Your task to perform on an android device: Clear the shopping cart on amazon.com. Add "razer blade" to the cart on amazon.com, then select checkout. Image 0: 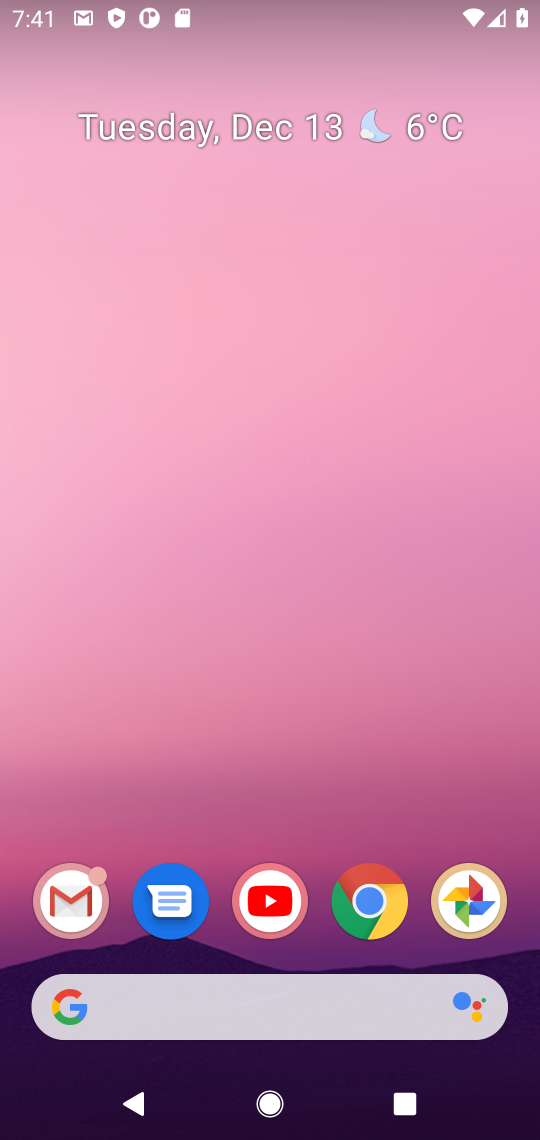
Step 0: click (362, 904)
Your task to perform on an android device: Clear the shopping cart on amazon.com. Add "razer blade" to the cart on amazon.com, then select checkout. Image 1: 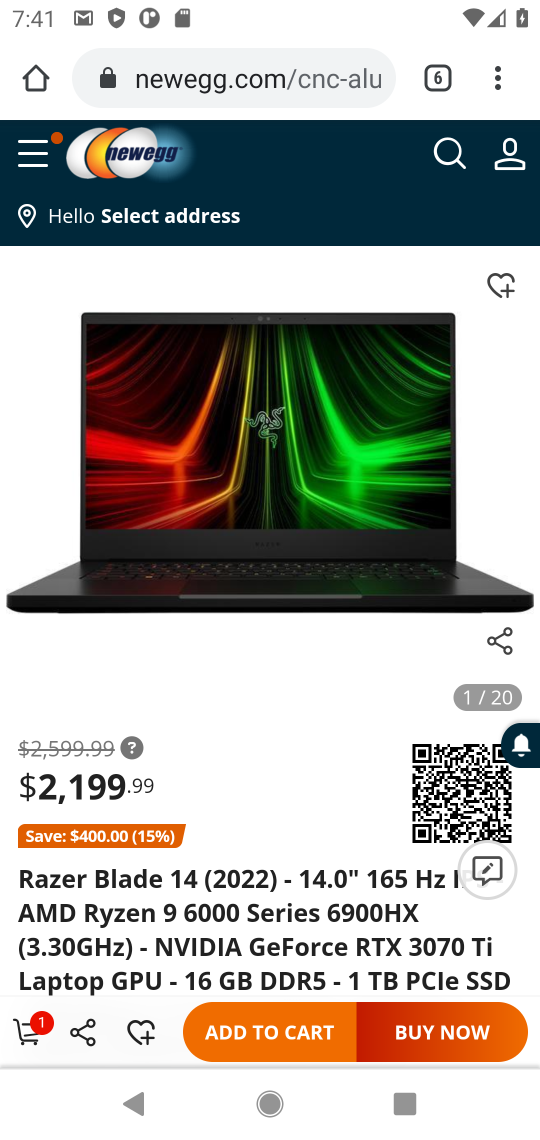
Step 1: click (426, 73)
Your task to perform on an android device: Clear the shopping cart on amazon.com. Add "razer blade" to the cart on amazon.com, then select checkout. Image 2: 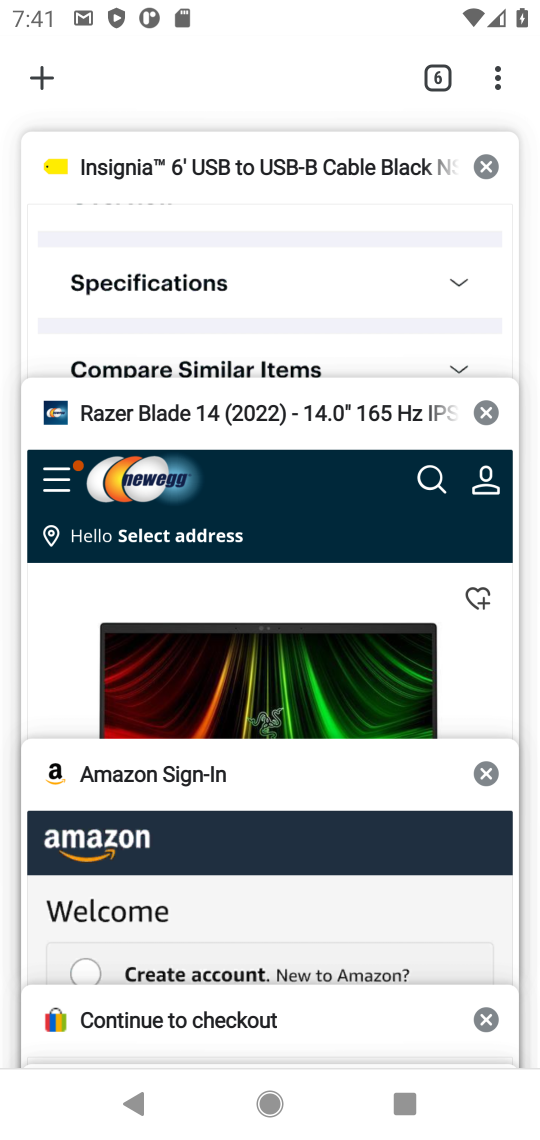
Step 2: click (278, 902)
Your task to perform on an android device: Clear the shopping cart on amazon.com. Add "razer blade" to the cart on amazon.com, then select checkout. Image 3: 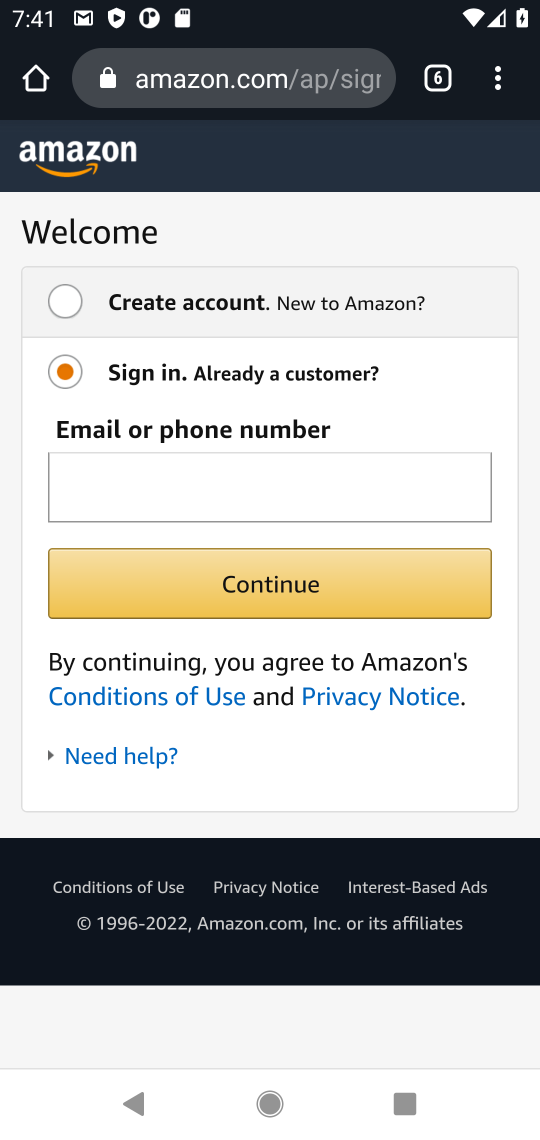
Step 3: press back button
Your task to perform on an android device: Clear the shopping cart on amazon.com. Add "razer blade" to the cart on amazon.com, then select checkout. Image 4: 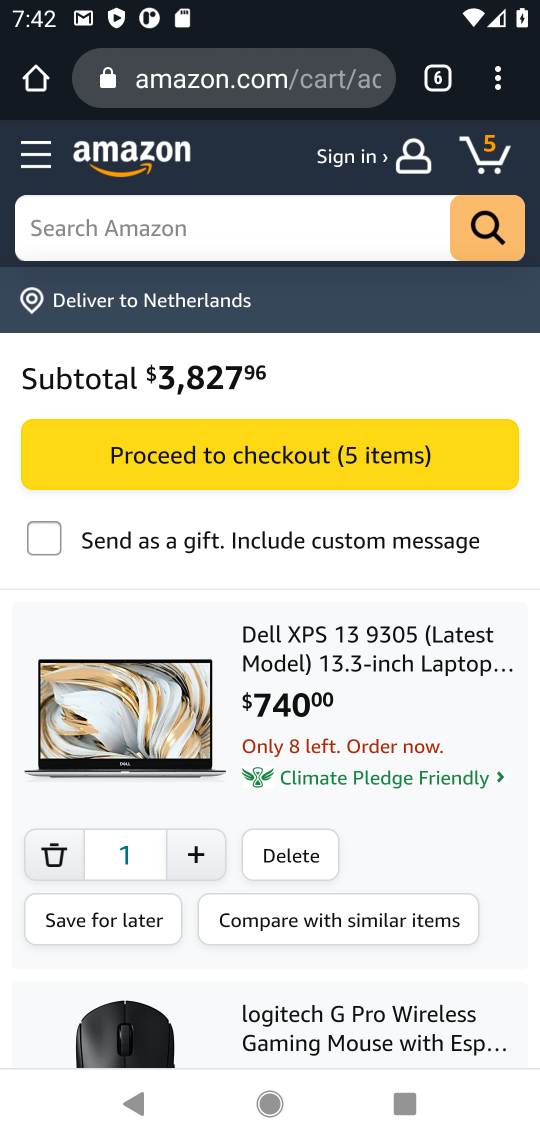
Step 4: click (281, 862)
Your task to perform on an android device: Clear the shopping cart on amazon.com. Add "razer blade" to the cart on amazon.com, then select checkout. Image 5: 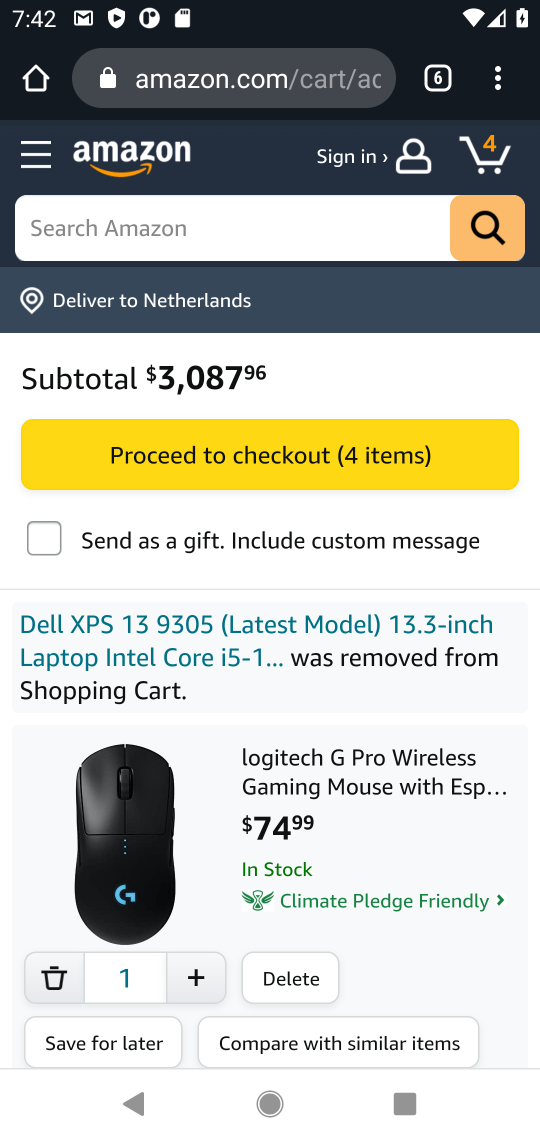
Step 5: click (290, 960)
Your task to perform on an android device: Clear the shopping cart on amazon.com. Add "razer blade" to the cart on amazon.com, then select checkout. Image 6: 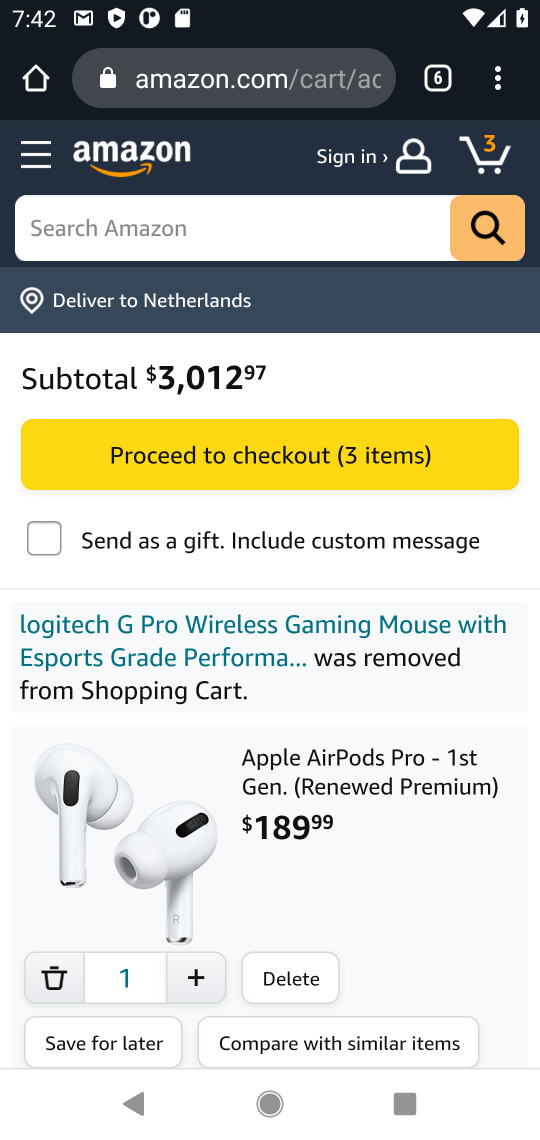
Step 6: click (291, 968)
Your task to perform on an android device: Clear the shopping cart on amazon.com. Add "razer blade" to the cart on amazon.com, then select checkout. Image 7: 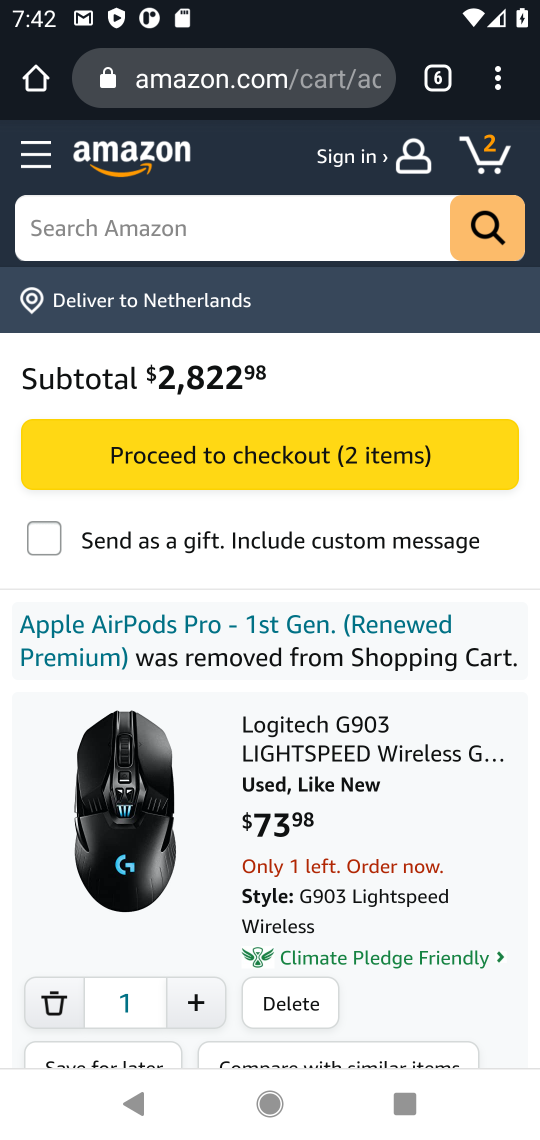
Step 7: click (280, 1004)
Your task to perform on an android device: Clear the shopping cart on amazon.com. Add "razer blade" to the cart on amazon.com, then select checkout. Image 8: 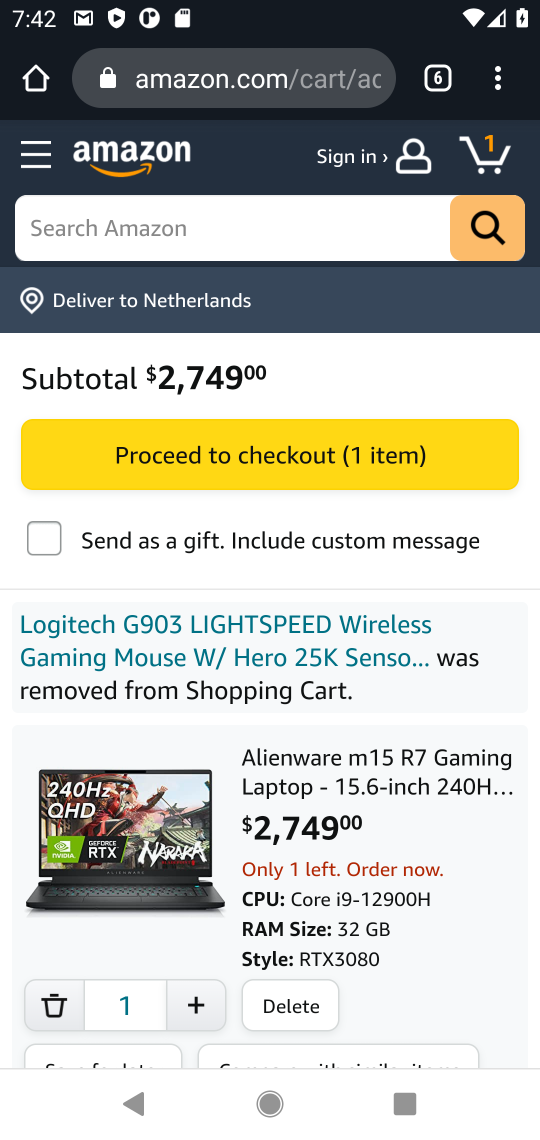
Step 8: click (286, 1001)
Your task to perform on an android device: Clear the shopping cart on amazon.com. Add "razer blade" to the cart on amazon.com, then select checkout. Image 9: 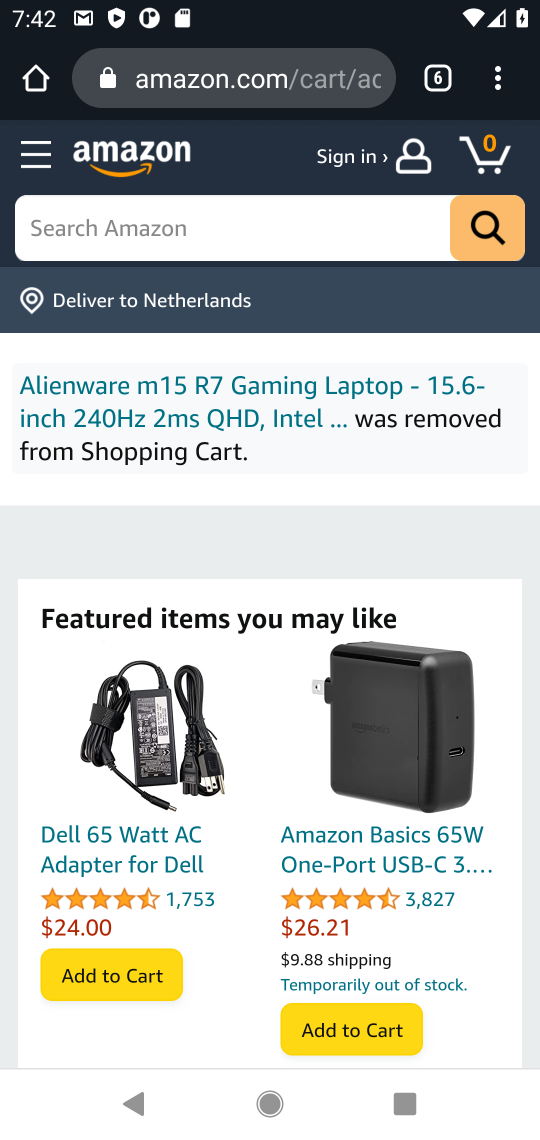
Step 9: click (180, 233)
Your task to perform on an android device: Clear the shopping cart on amazon.com. Add "razer blade" to the cart on amazon.com, then select checkout. Image 10: 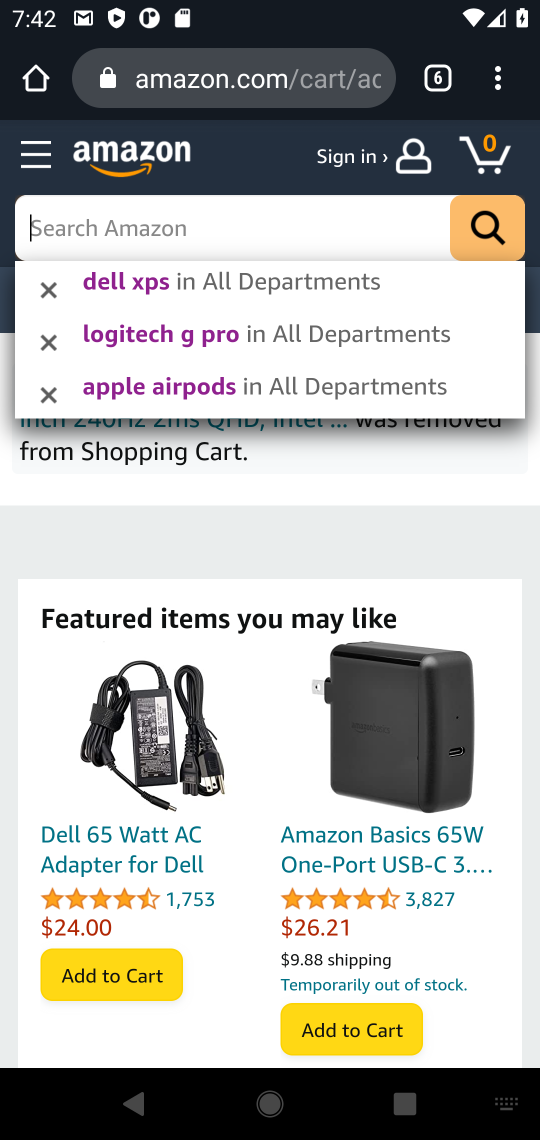
Step 10: type "razer blade"
Your task to perform on an android device: Clear the shopping cart on amazon.com. Add "razer blade" to the cart on amazon.com, then select checkout. Image 11: 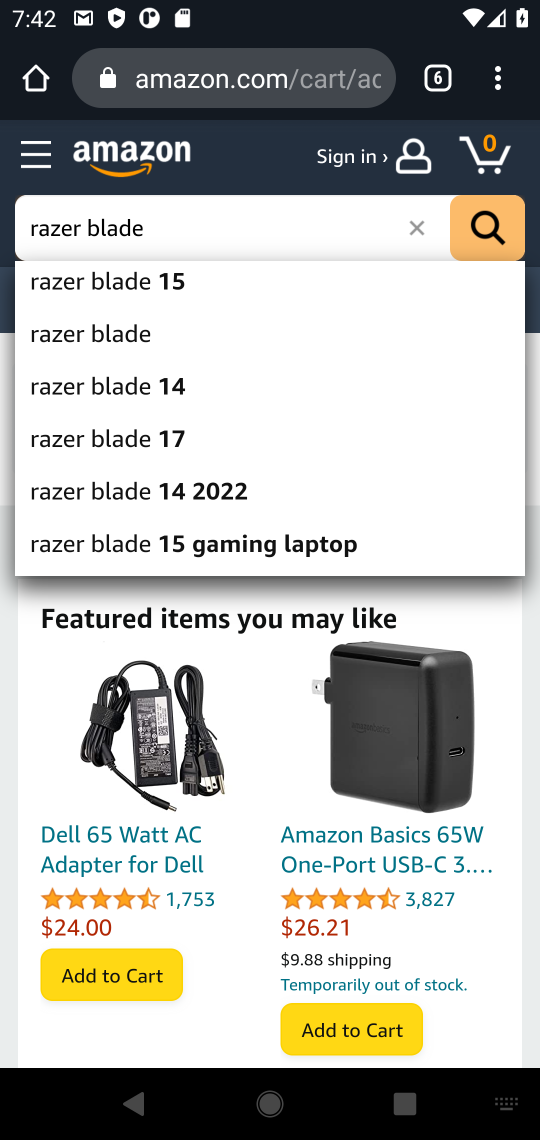
Step 11: click (107, 337)
Your task to perform on an android device: Clear the shopping cart on amazon.com. Add "razer blade" to the cart on amazon.com, then select checkout. Image 12: 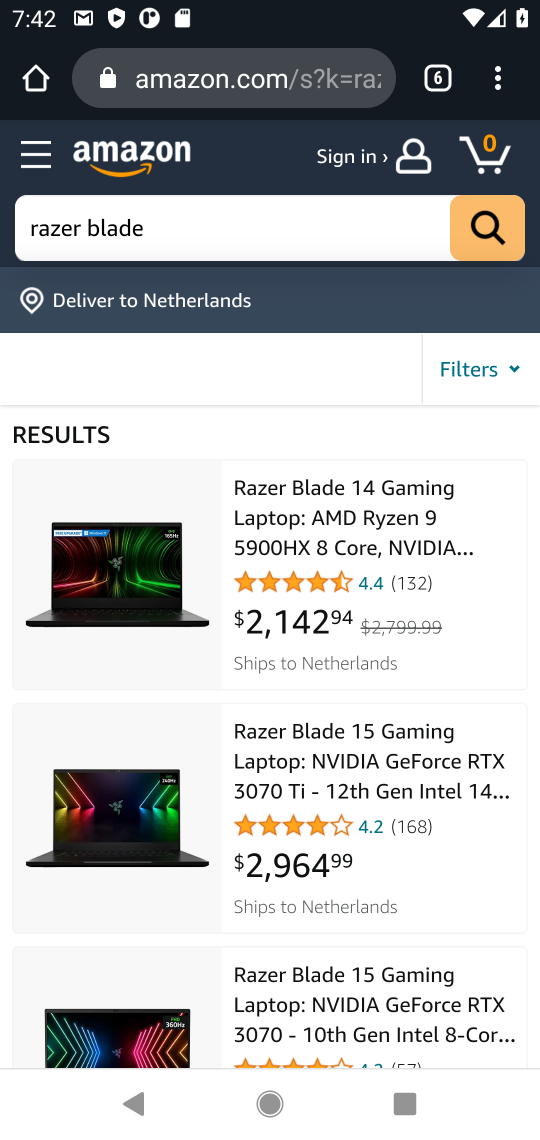
Step 12: click (324, 503)
Your task to perform on an android device: Clear the shopping cart on amazon.com. Add "razer blade" to the cart on amazon.com, then select checkout. Image 13: 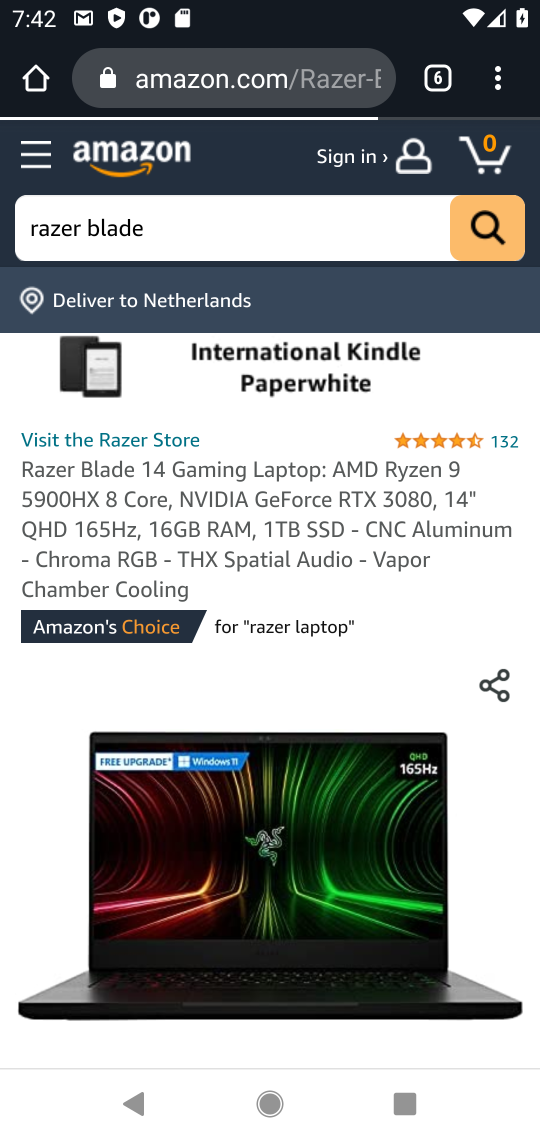
Step 13: drag from (255, 892) to (309, 522)
Your task to perform on an android device: Clear the shopping cart on amazon.com. Add "razer blade" to the cart on amazon.com, then select checkout. Image 14: 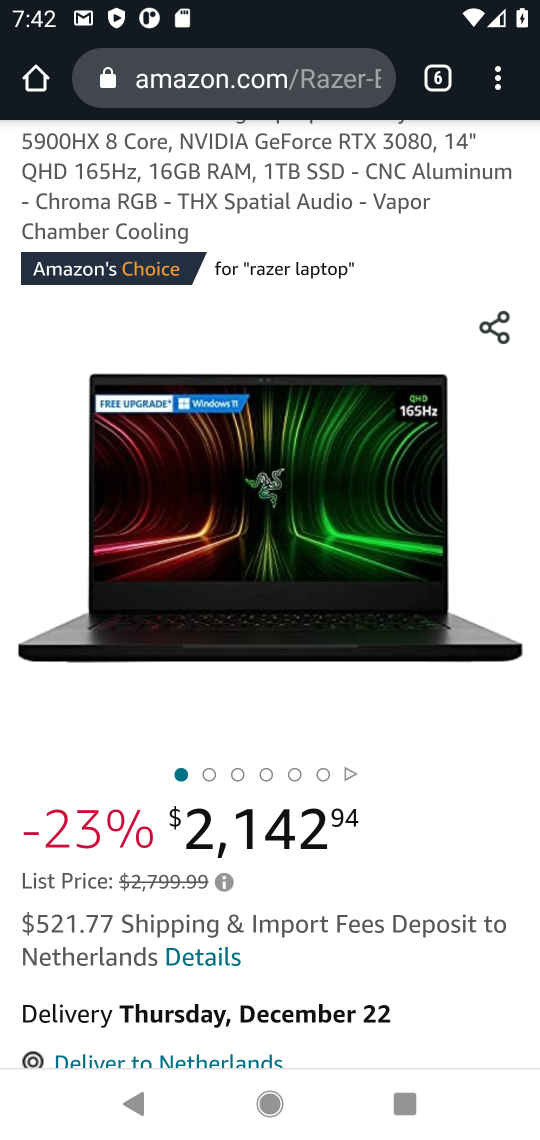
Step 14: drag from (300, 900) to (374, 570)
Your task to perform on an android device: Clear the shopping cart on amazon.com. Add "razer blade" to the cart on amazon.com, then select checkout. Image 15: 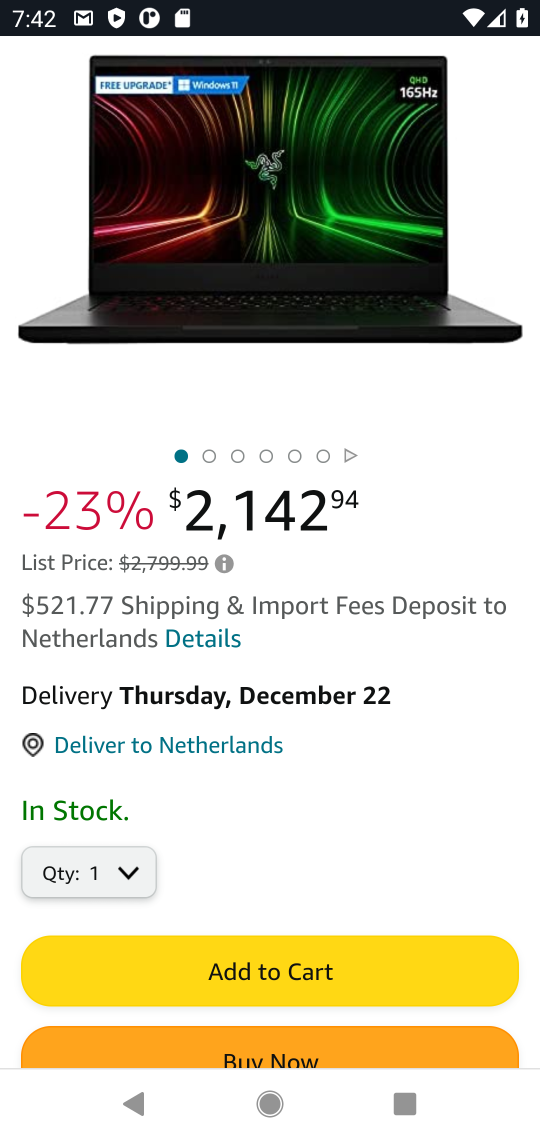
Step 15: click (268, 963)
Your task to perform on an android device: Clear the shopping cart on amazon.com. Add "razer blade" to the cart on amazon.com, then select checkout. Image 16: 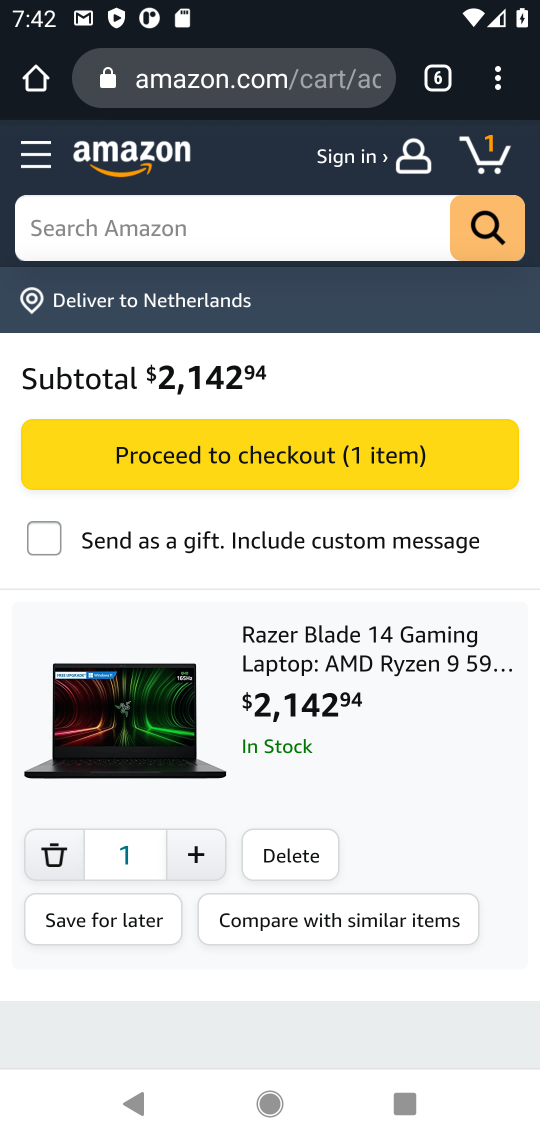
Step 16: click (393, 453)
Your task to perform on an android device: Clear the shopping cart on amazon.com. Add "razer blade" to the cart on amazon.com, then select checkout. Image 17: 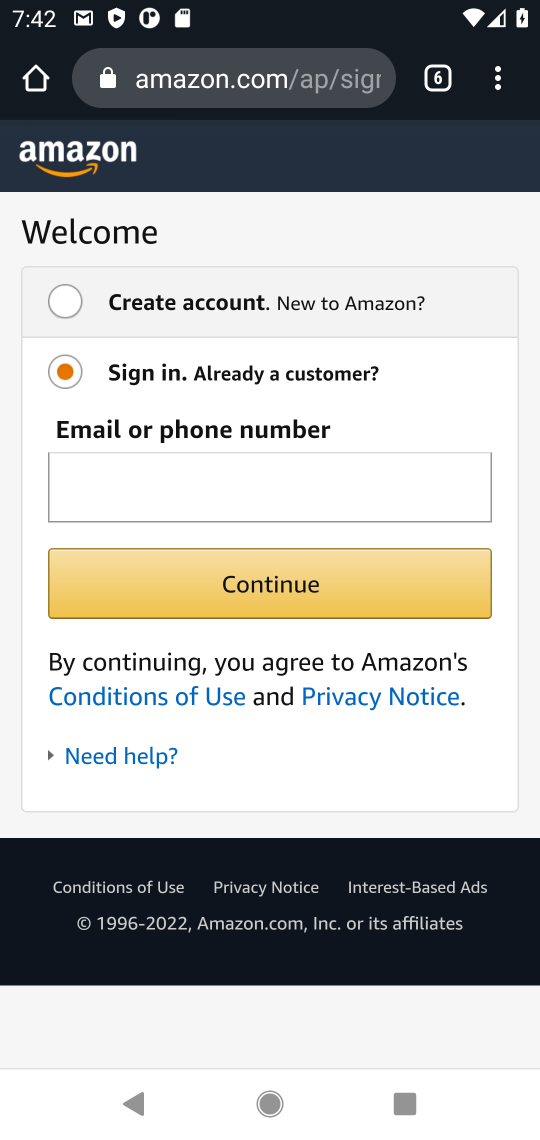
Step 17: task complete